Your task to perform on an android device: Add logitech g pro to the cart on target, then select checkout. Image 0: 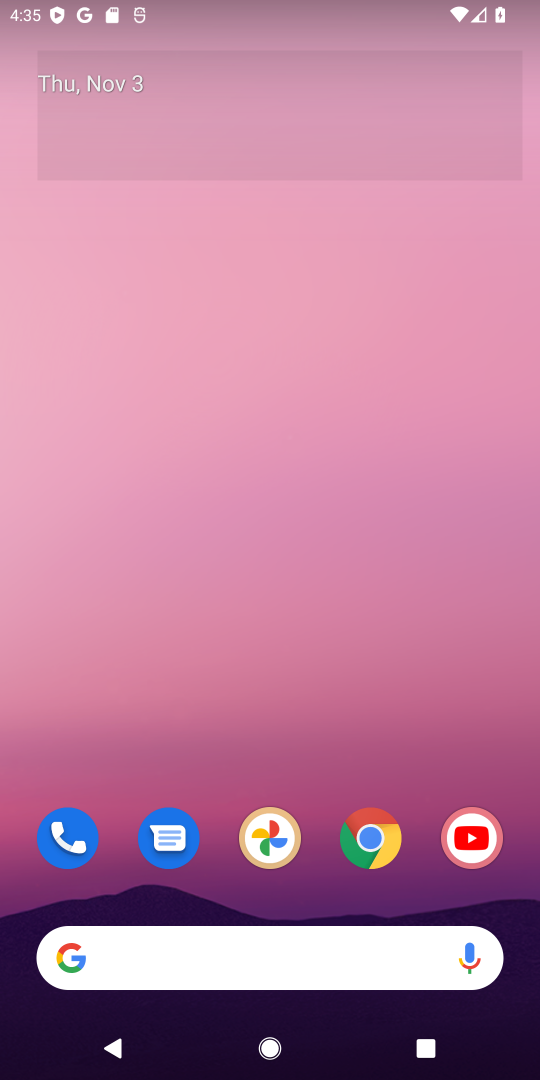
Step 0: click (74, 952)
Your task to perform on an android device: Add logitech g pro to the cart on target, then select checkout. Image 1: 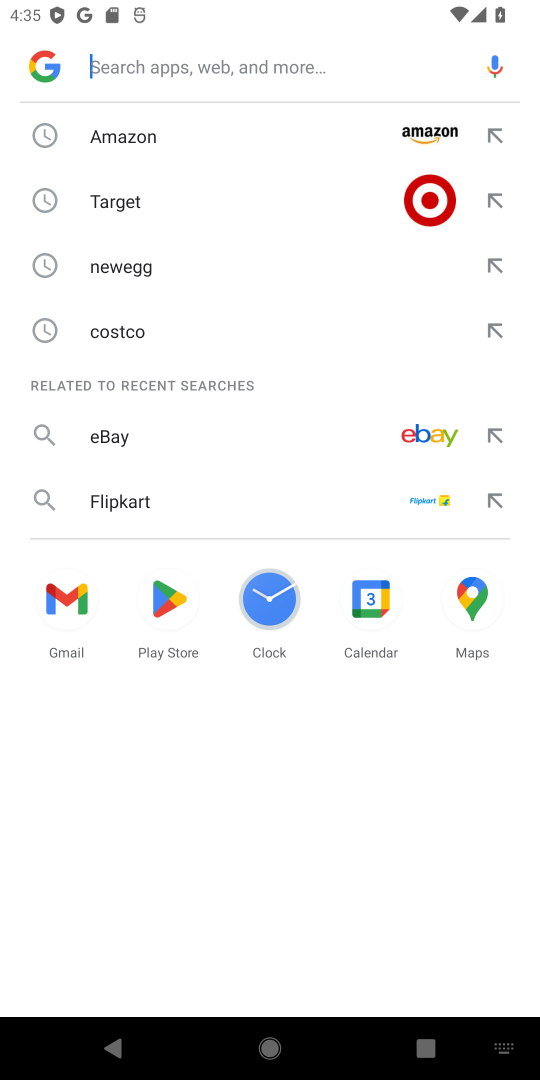
Step 1: click (188, 207)
Your task to perform on an android device: Add logitech g pro to the cart on target, then select checkout. Image 2: 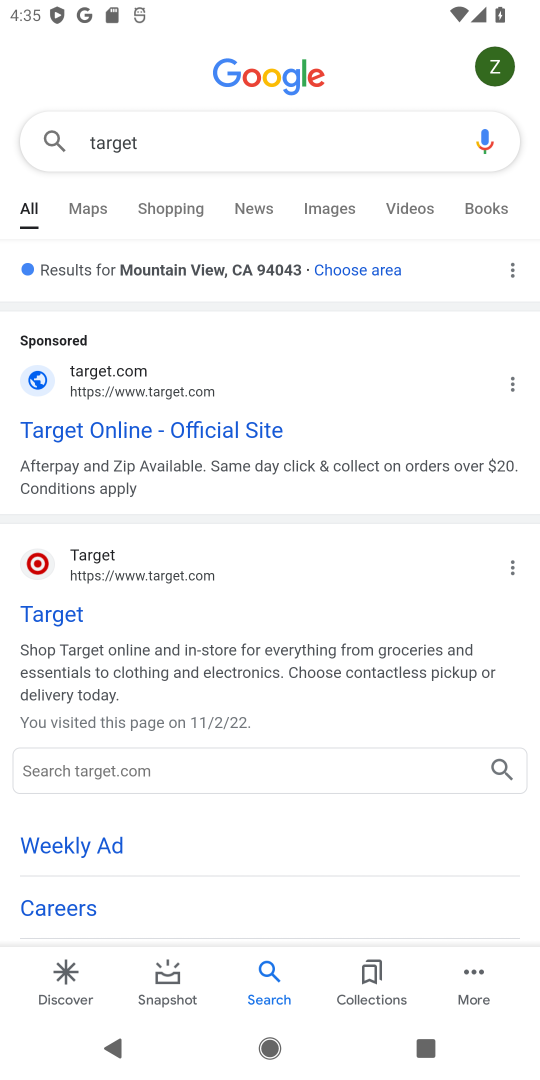
Step 2: click (65, 605)
Your task to perform on an android device: Add logitech g pro to the cart on target, then select checkout. Image 3: 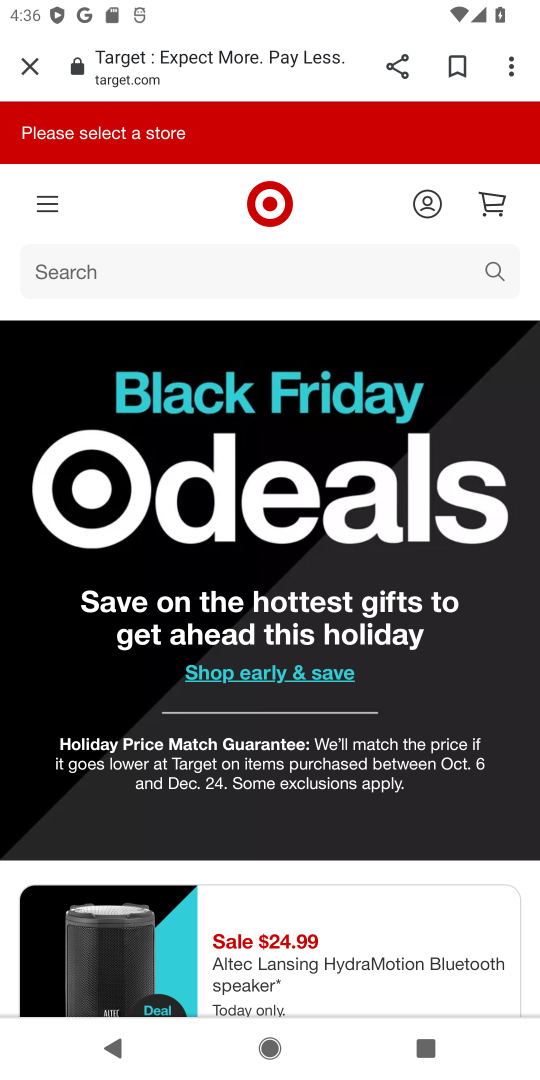
Step 3: click (492, 267)
Your task to perform on an android device: Add logitech g pro to the cart on target, then select checkout. Image 4: 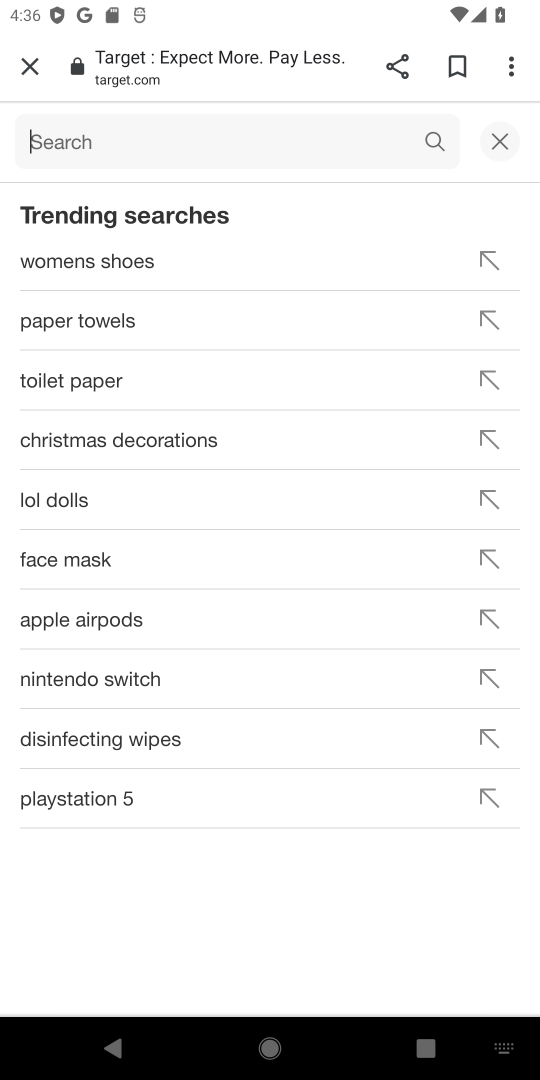
Step 4: click (338, 135)
Your task to perform on an android device: Add logitech g pro to the cart on target, then select checkout. Image 5: 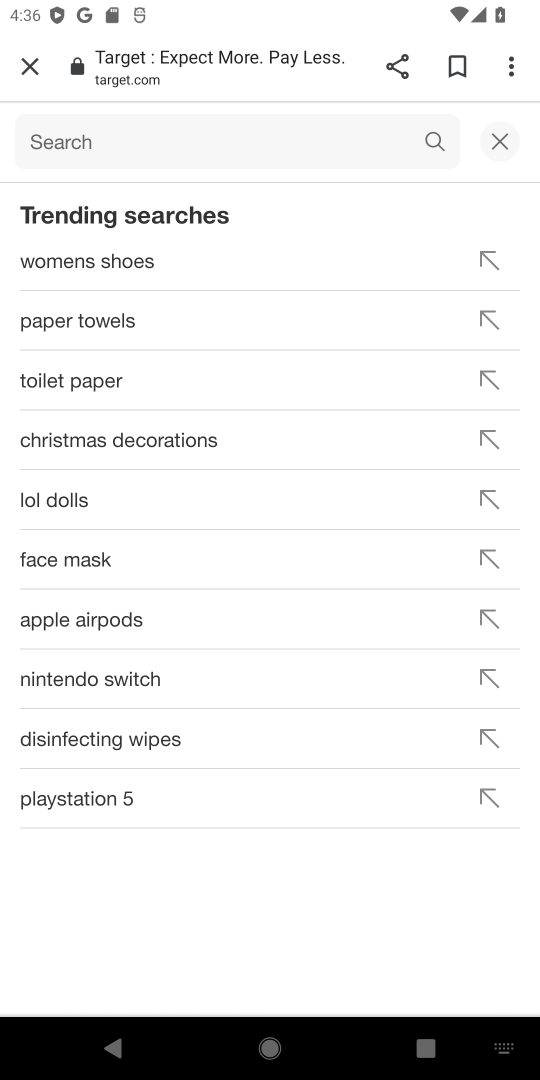
Step 5: click (301, 145)
Your task to perform on an android device: Add logitech g pro to the cart on target, then select checkout. Image 6: 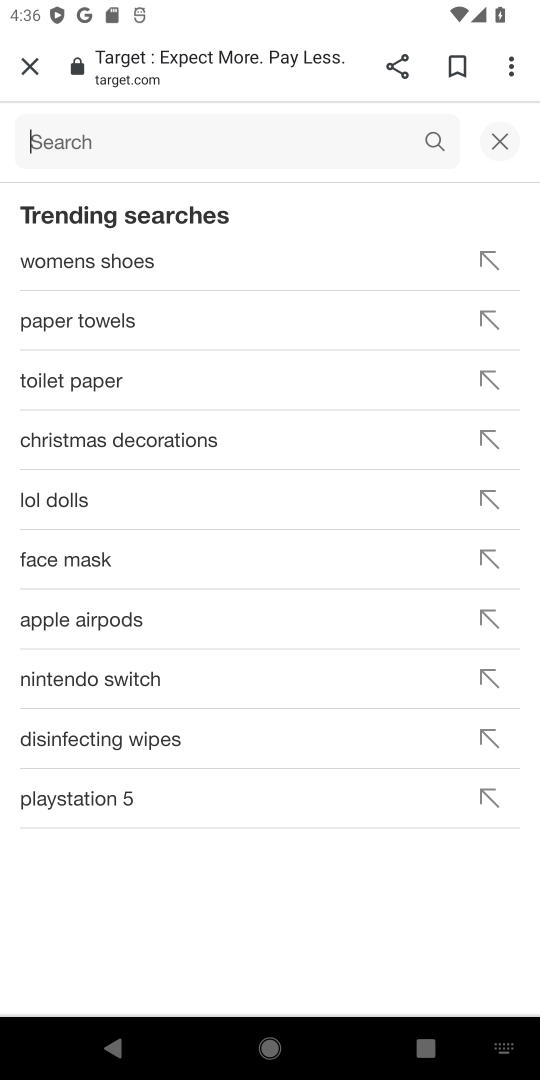
Step 6: type "logitech g pro"
Your task to perform on an android device: Add logitech g pro to the cart on target, then select checkout. Image 7: 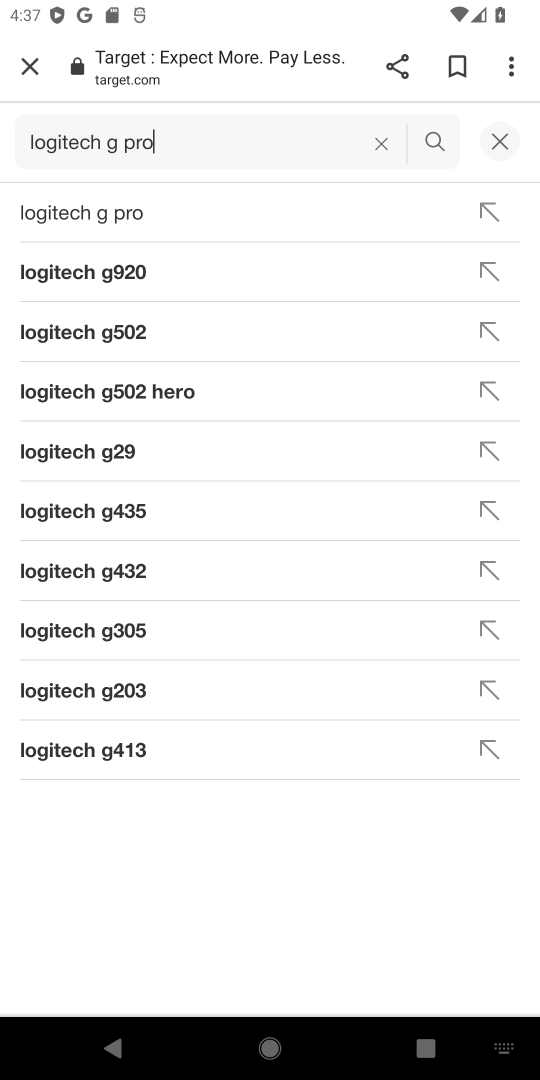
Step 7: click (104, 218)
Your task to perform on an android device: Add logitech g pro to the cart on target, then select checkout. Image 8: 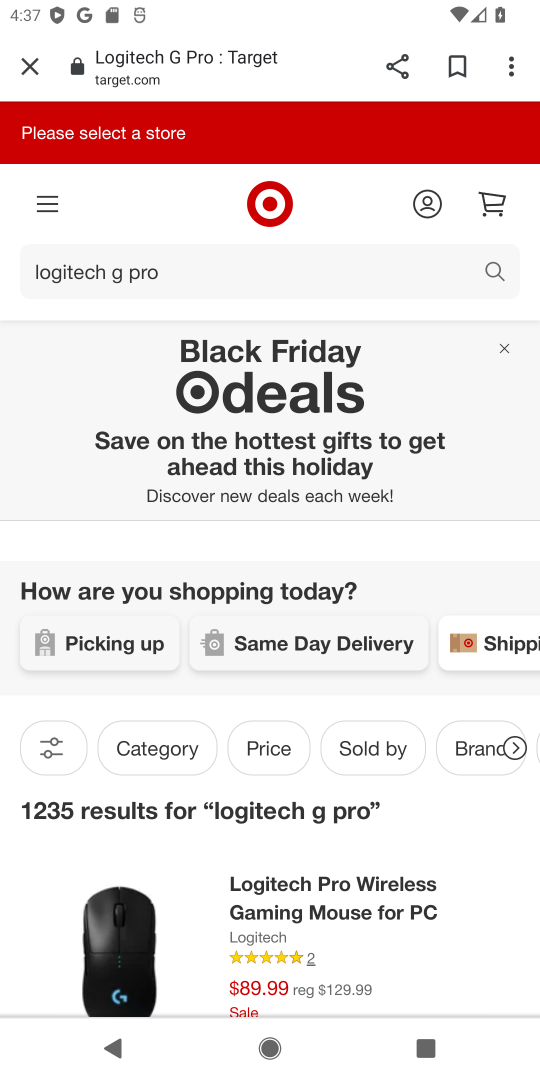
Step 8: drag from (292, 812) to (299, 202)
Your task to perform on an android device: Add logitech g pro to the cart on target, then select checkout. Image 9: 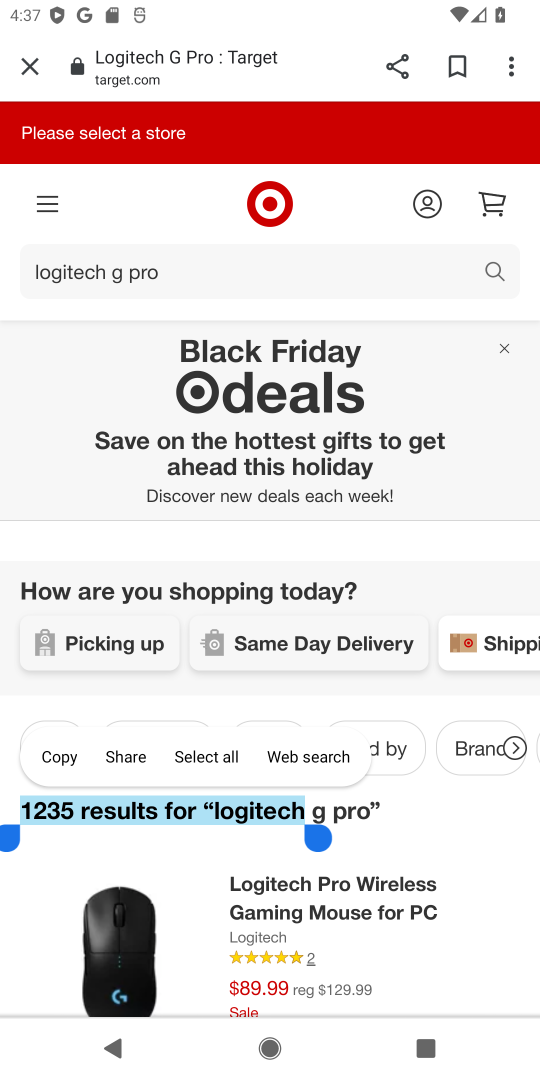
Step 9: click (360, 893)
Your task to perform on an android device: Add logitech g pro to the cart on target, then select checkout. Image 10: 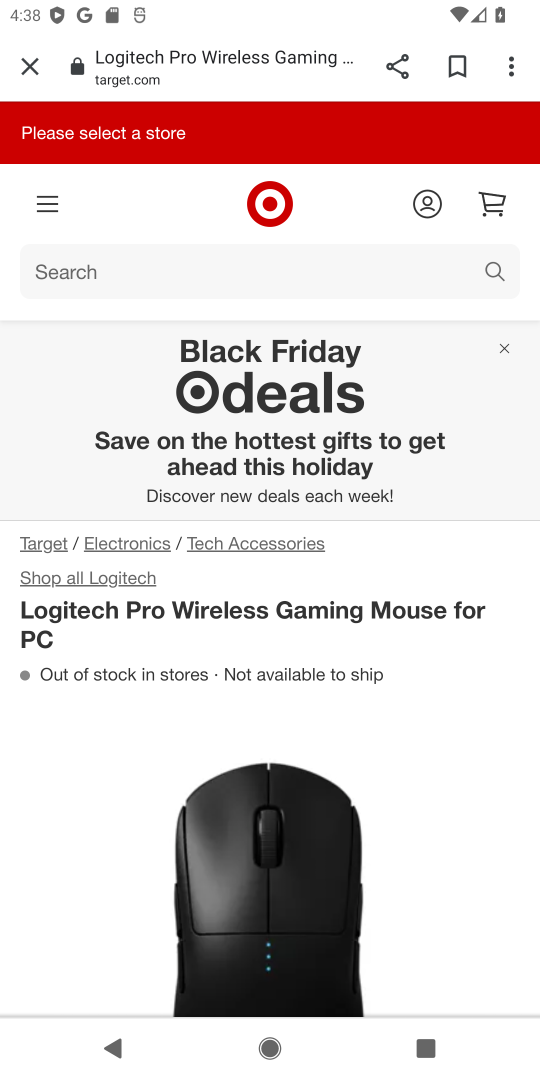
Step 10: drag from (351, 731) to (327, 200)
Your task to perform on an android device: Add logitech g pro to the cart on target, then select checkout. Image 11: 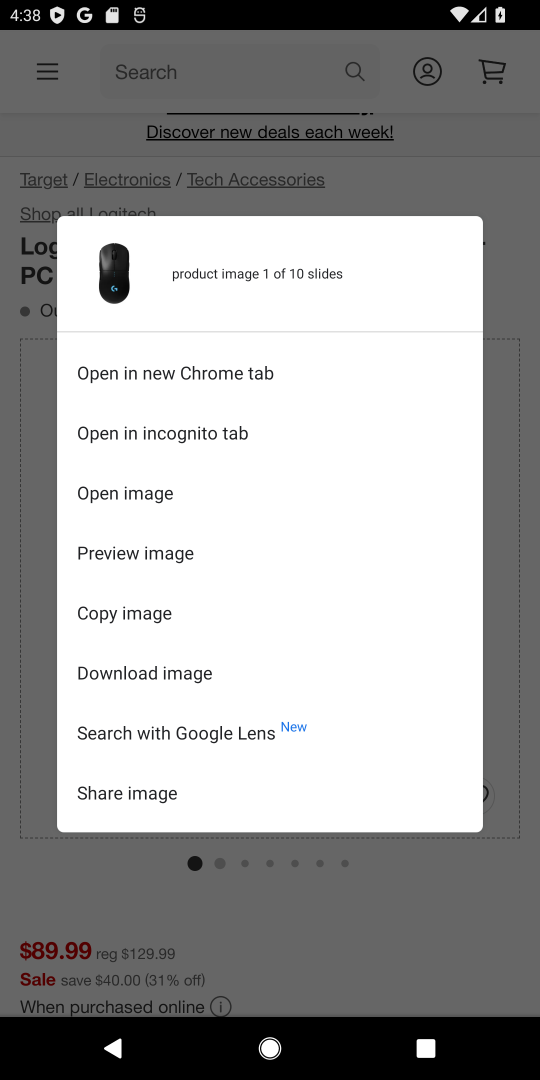
Step 11: click (500, 211)
Your task to perform on an android device: Add logitech g pro to the cart on target, then select checkout. Image 12: 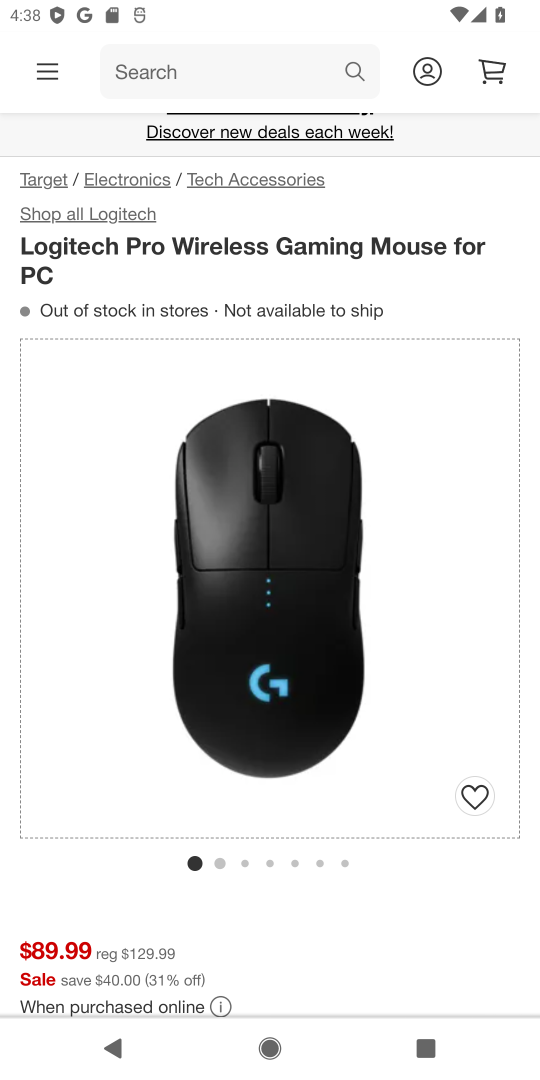
Step 12: drag from (349, 854) to (314, 321)
Your task to perform on an android device: Add logitech g pro to the cart on target, then select checkout. Image 13: 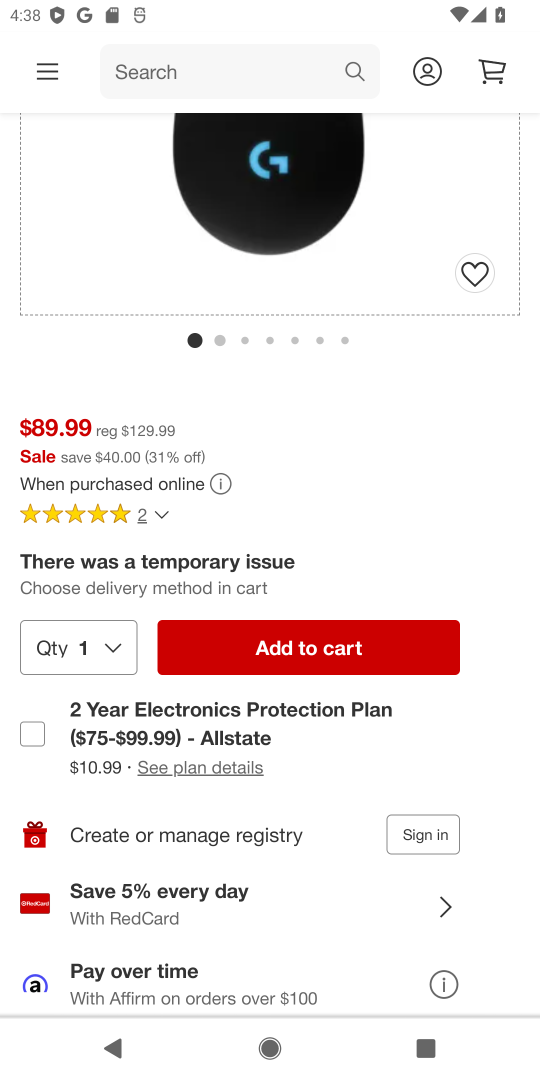
Step 13: click (260, 647)
Your task to perform on an android device: Add logitech g pro to the cart on target, then select checkout. Image 14: 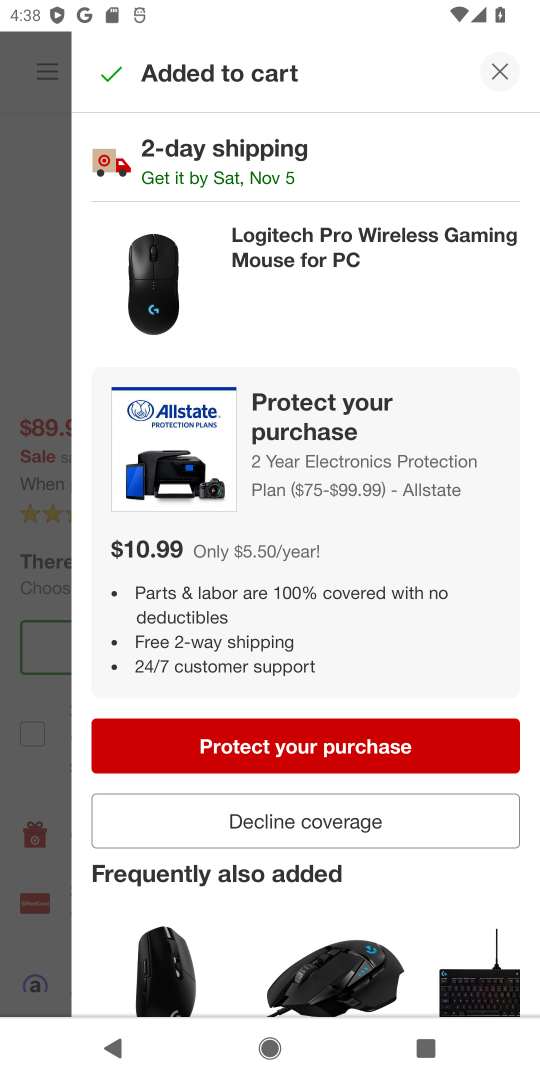
Step 14: task complete